Your task to perform on an android device: Open display settings Image 0: 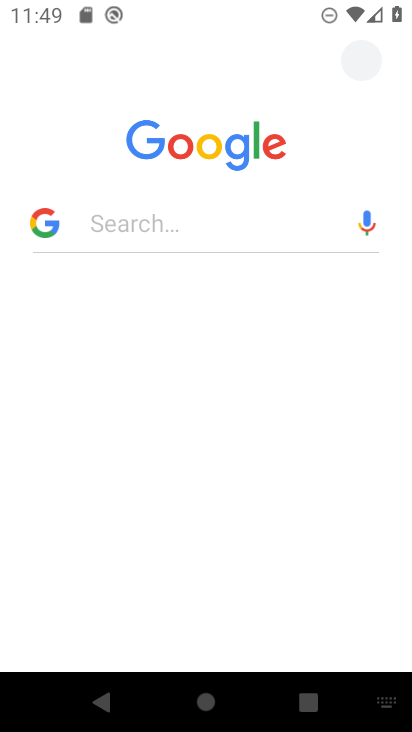
Step 0: press home button
Your task to perform on an android device: Open display settings Image 1: 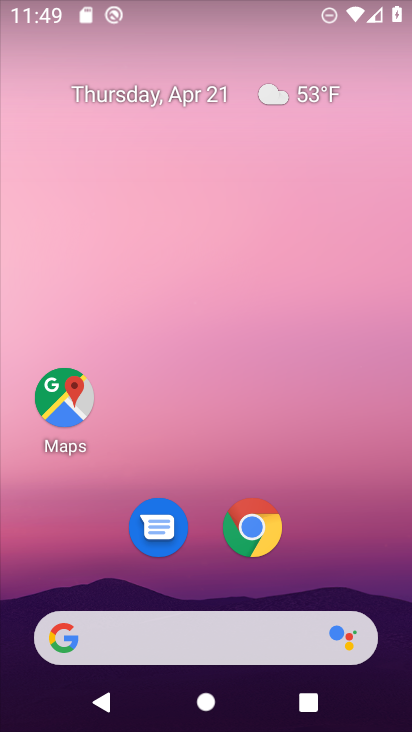
Step 1: drag from (362, 531) to (346, 60)
Your task to perform on an android device: Open display settings Image 2: 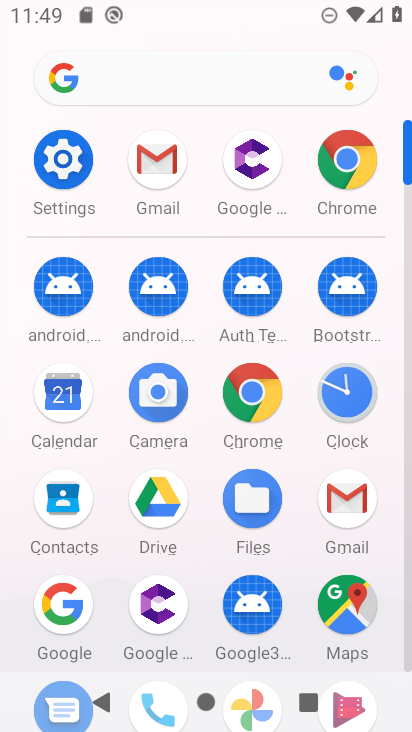
Step 2: click (70, 167)
Your task to perform on an android device: Open display settings Image 3: 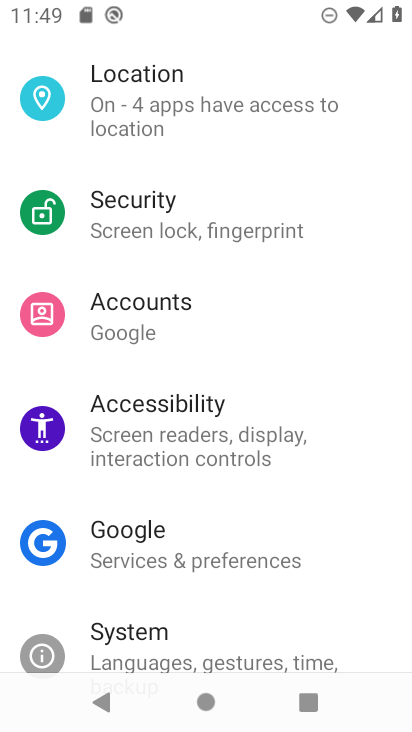
Step 3: drag from (330, 522) to (340, 289)
Your task to perform on an android device: Open display settings Image 4: 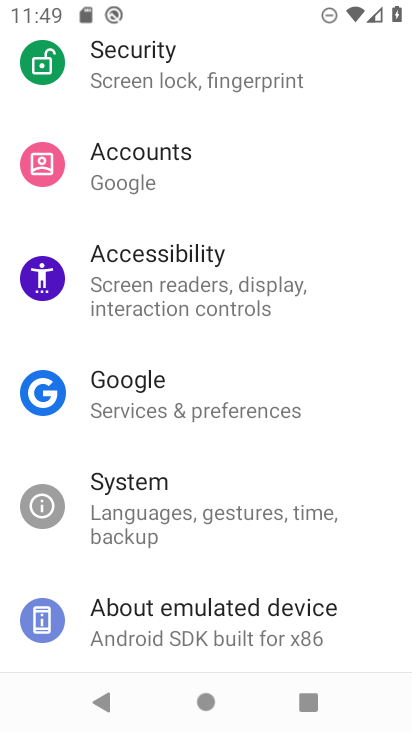
Step 4: drag from (351, 267) to (366, 361)
Your task to perform on an android device: Open display settings Image 5: 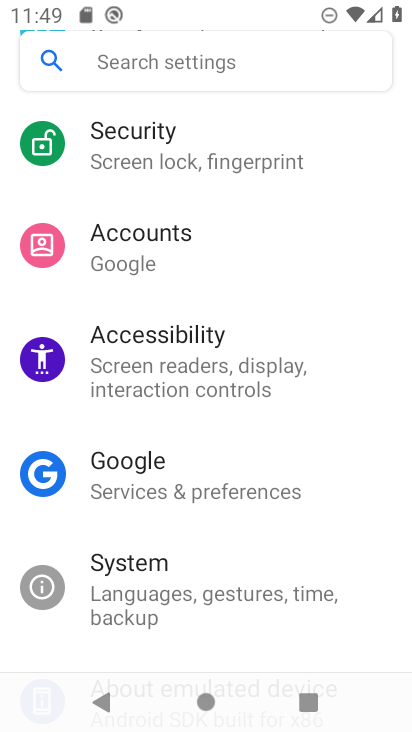
Step 5: drag from (359, 309) to (361, 403)
Your task to perform on an android device: Open display settings Image 6: 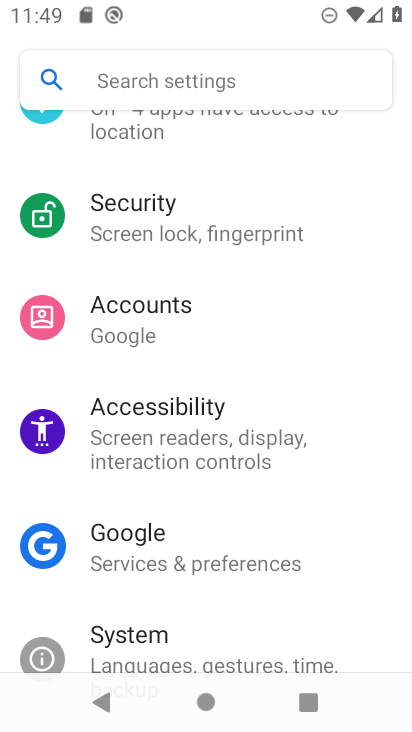
Step 6: drag from (351, 314) to (352, 416)
Your task to perform on an android device: Open display settings Image 7: 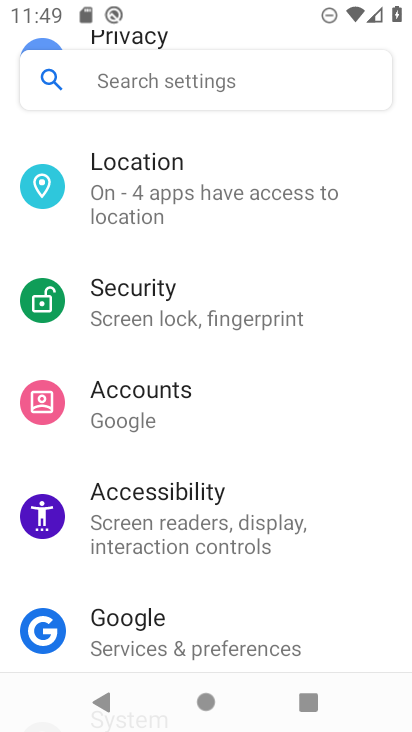
Step 7: drag from (347, 343) to (347, 437)
Your task to perform on an android device: Open display settings Image 8: 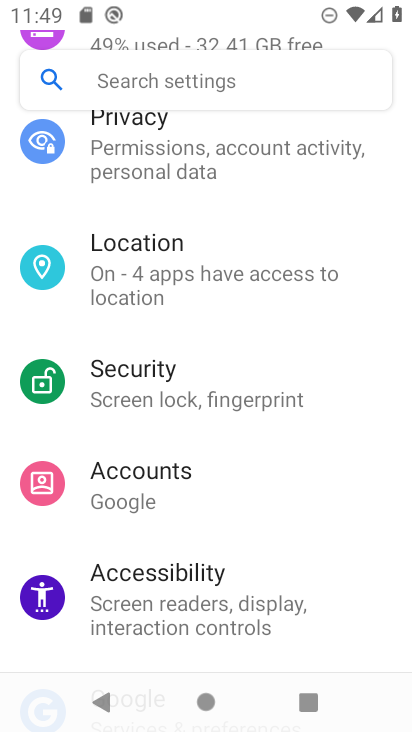
Step 8: drag from (347, 354) to (357, 432)
Your task to perform on an android device: Open display settings Image 9: 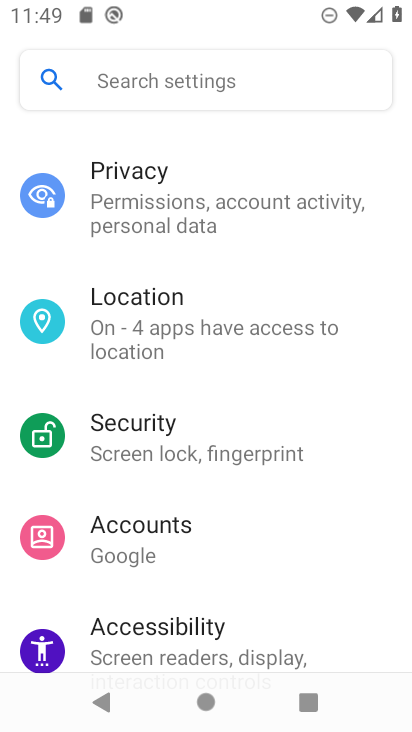
Step 9: drag from (365, 334) to (368, 440)
Your task to perform on an android device: Open display settings Image 10: 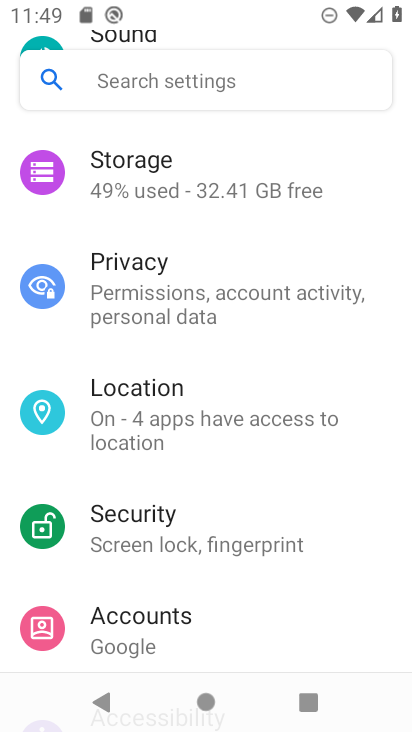
Step 10: drag from (362, 348) to (364, 426)
Your task to perform on an android device: Open display settings Image 11: 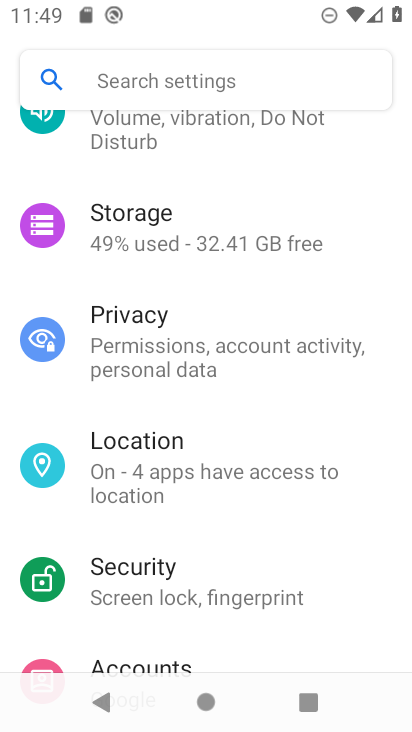
Step 11: drag from (376, 345) to (377, 434)
Your task to perform on an android device: Open display settings Image 12: 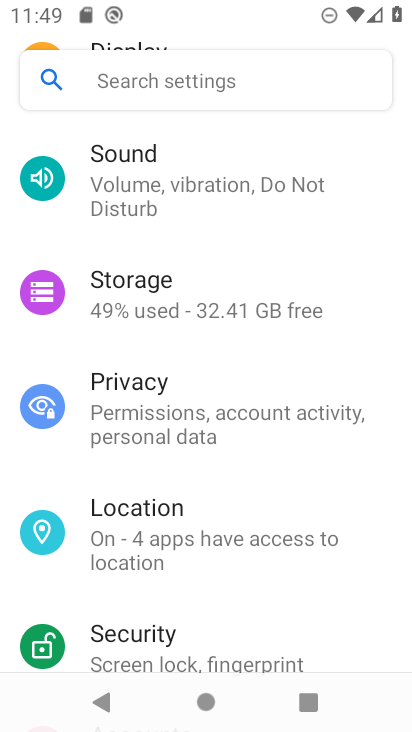
Step 12: drag from (384, 372) to (381, 468)
Your task to perform on an android device: Open display settings Image 13: 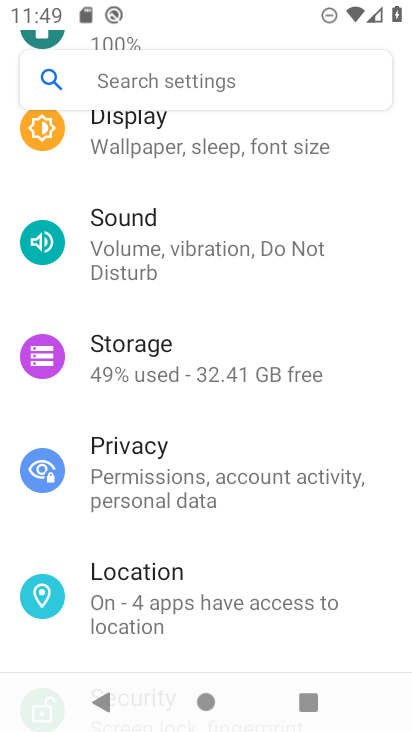
Step 13: drag from (383, 371) to (385, 461)
Your task to perform on an android device: Open display settings Image 14: 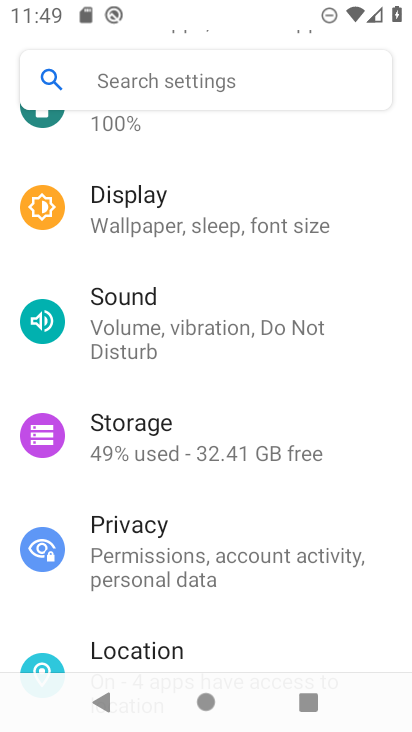
Step 14: drag from (370, 383) to (371, 448)
Your task to perform on an android device: Open display settings Image 15: 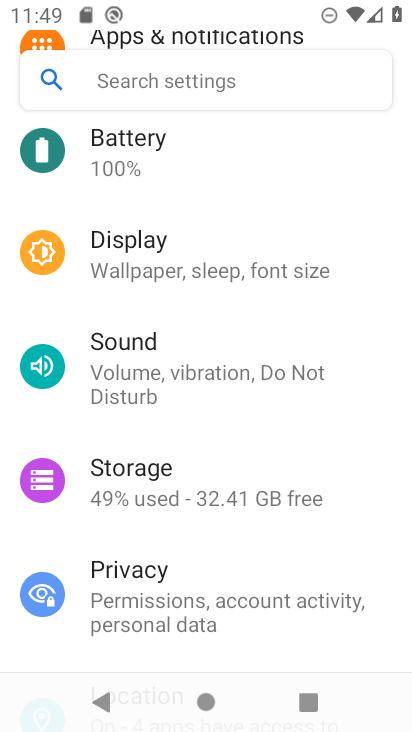
Step 15: drag from (370, 407) to (369, 478)
Your task to perform on an android device: Open display settings Image 16: 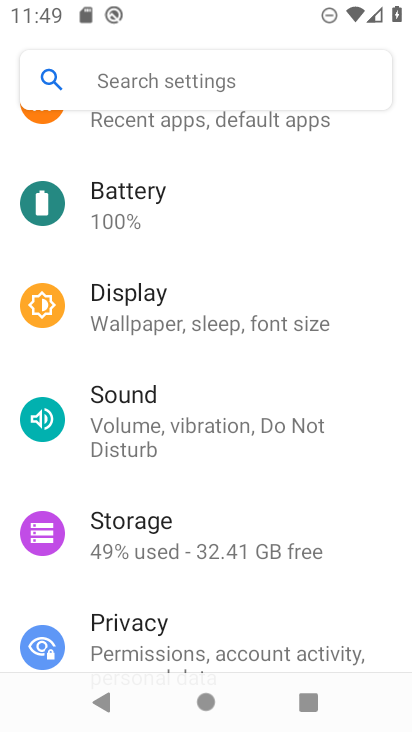
Step 16: drag from (368, 414) to (367, 517)
Your task to perform on an android device: Open display settings Image 17: 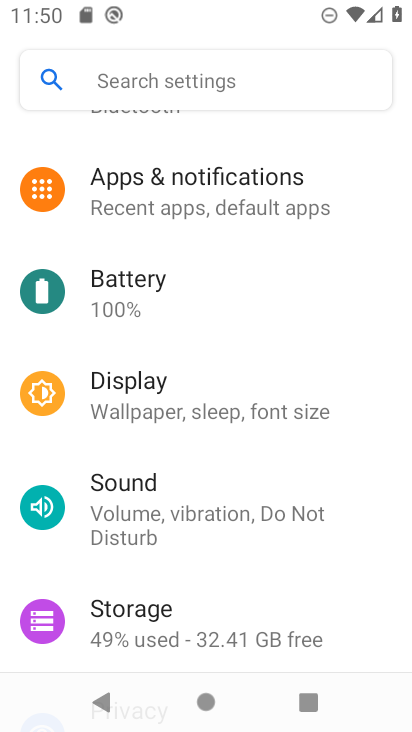
Step 17: drag from (371, 448) to (373, 522)
Your task to perform on an android device: Open display settings Image 18: 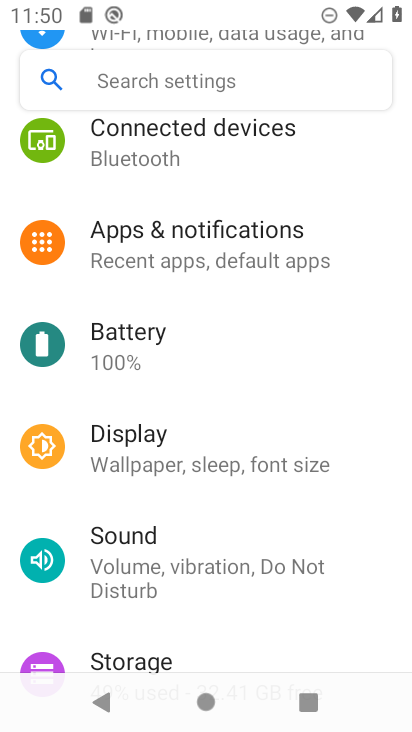
Step 18: click (232, 465)
Your task to perform on an android device: Open display settings Image 19: 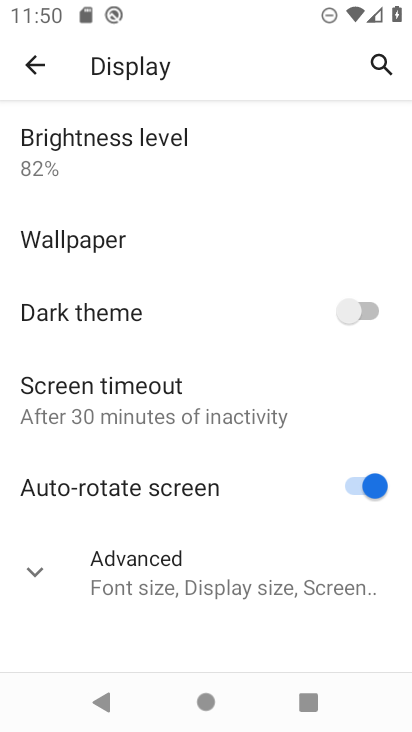
Step 19: click (182, 585)
Your task to perform on an android device: Open display settings Image 20: 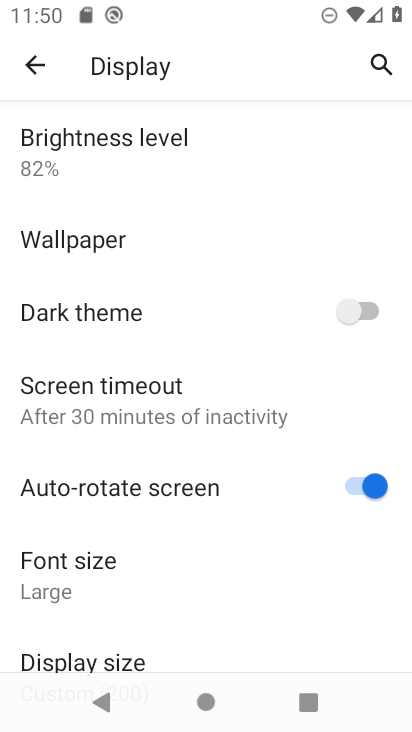
Step 20: task complete